Your task to perform on an android device: Open ESPN.com Image 0: 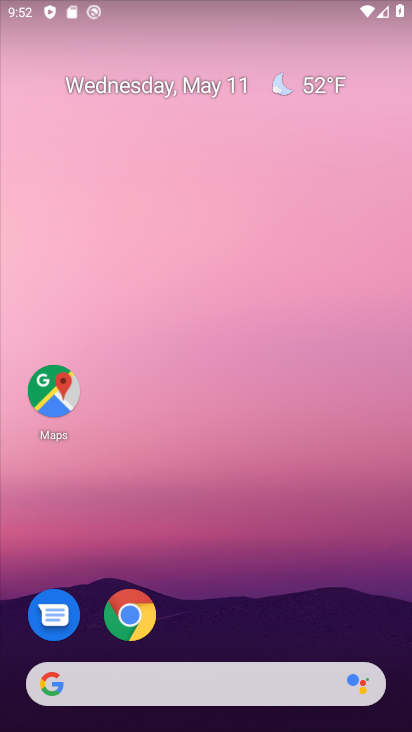
Step 0: click (129, 615)
Your task to perform on an android device: Open ESPN.com Image 1: 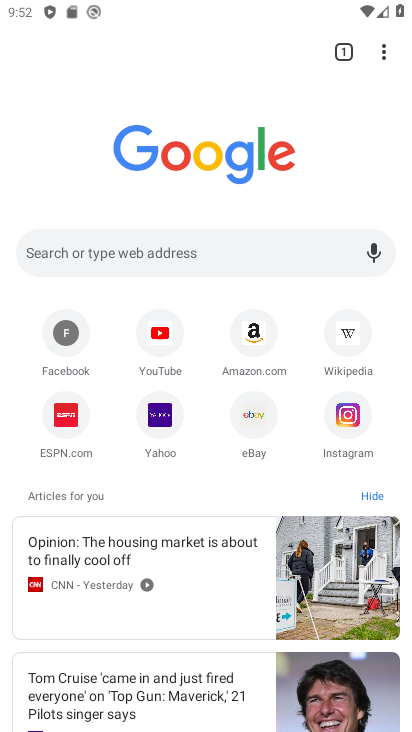
Step 1: click (208, 249)
Your task to perform on an android device: Open ESPN.com Image 2: 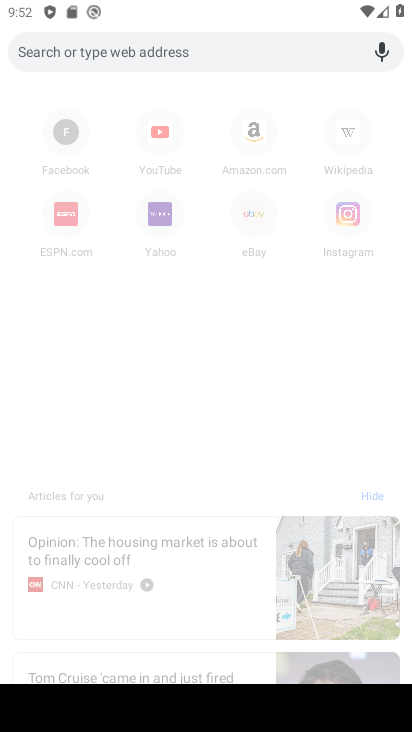
Step 2: type "ESPN.com"
Your task to perform on an android device: Open ESPN.com Image 3: 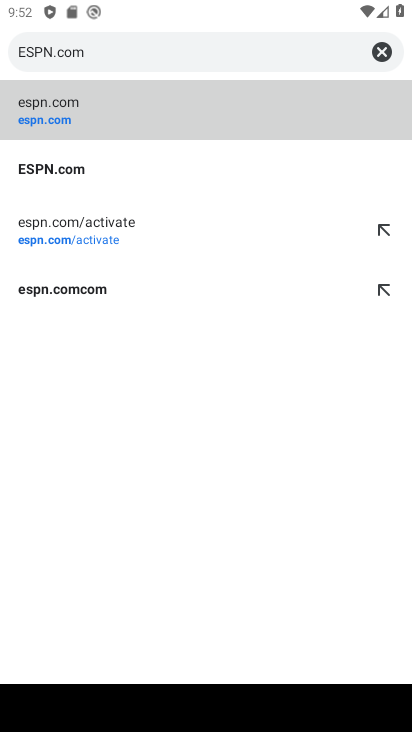
Step 3: click (67, 165)
Your task to perform on an android device: Open ESPN.com Image 4: 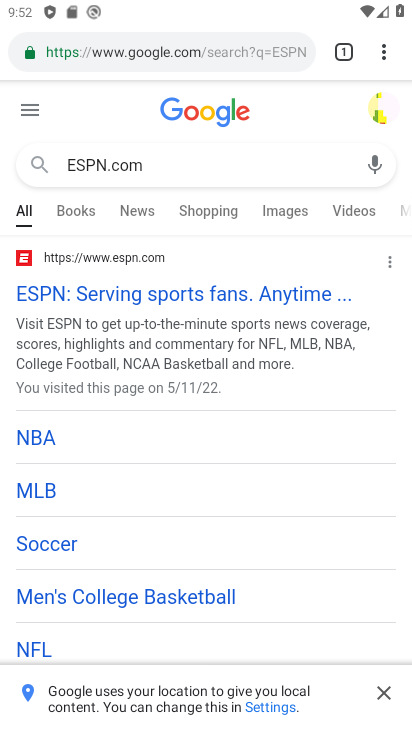
Step 4: click (118, 297)
Your task to perform on an android device: Open ESPN.com Image 5: 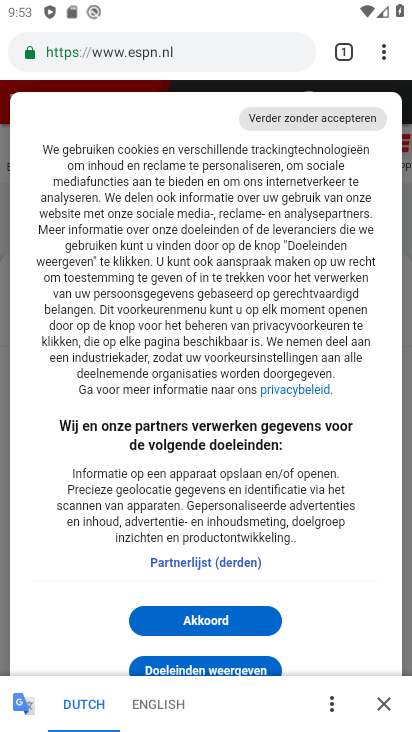
Step 5: task complete